Your task to perform on an android device: Open maps Image 0: 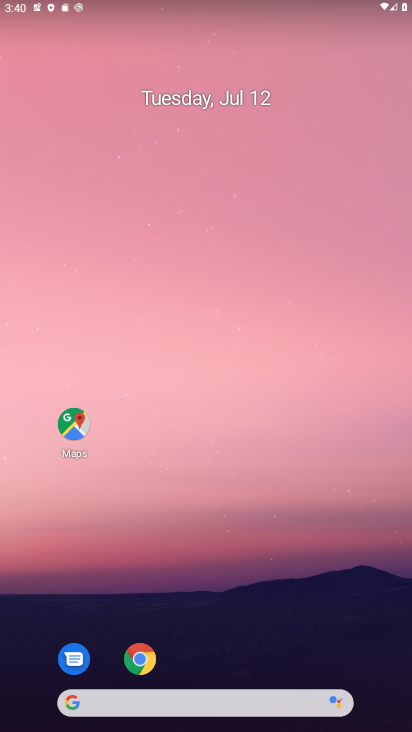
Step 0: drag from (228, 695) to (233, 293)
Your task to perform on an android device: Open maps Image 1: 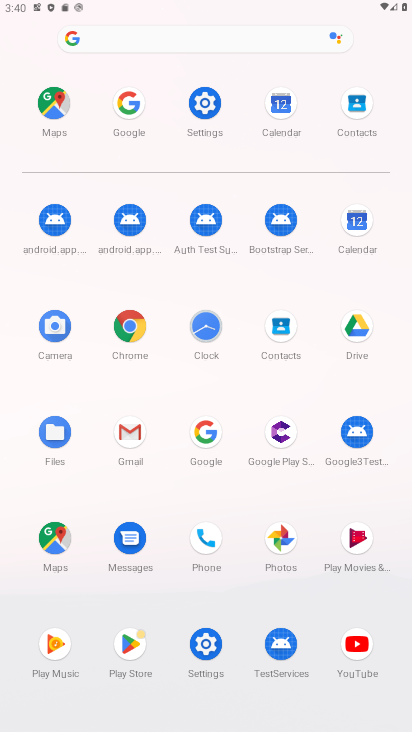
Step 1: click (60, 536)
Your task to perform on an android device: Open maps Image 2: 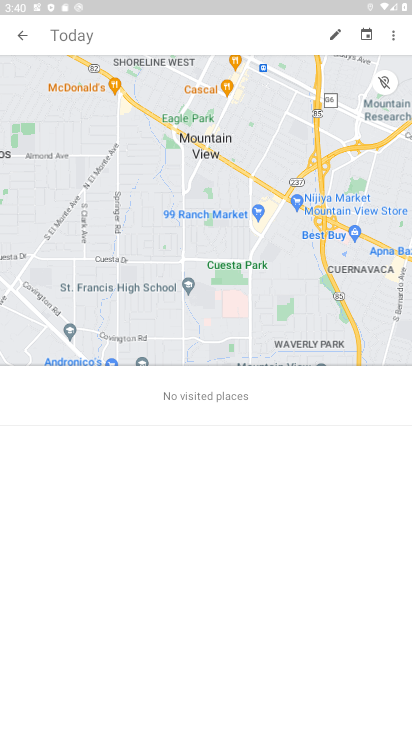
Step 2: task complete